Your task to perform on an android device: Open Google Maps Image 0: 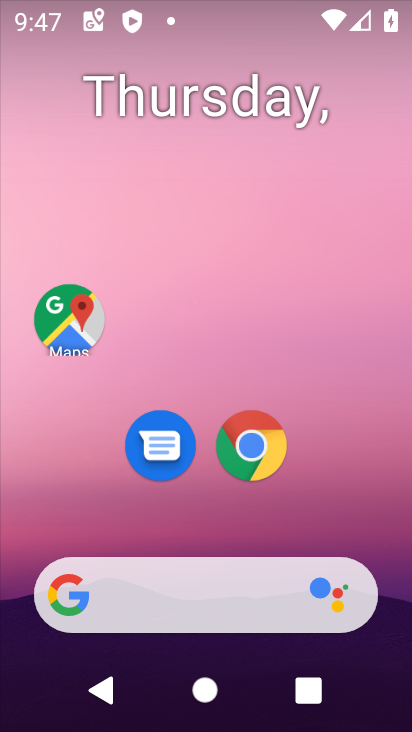
Step 0: click (265, 238)
Your task to perform on an android device: Open Google Maps Image 1: 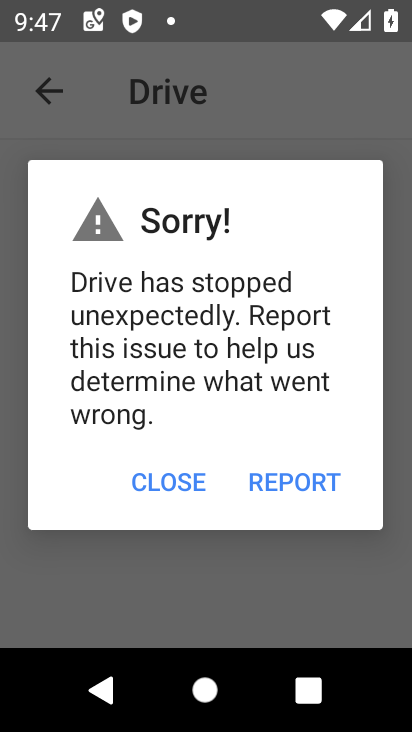
Step 1: press home button
Your task to perform on an android device: Open Google Maps Image 2: 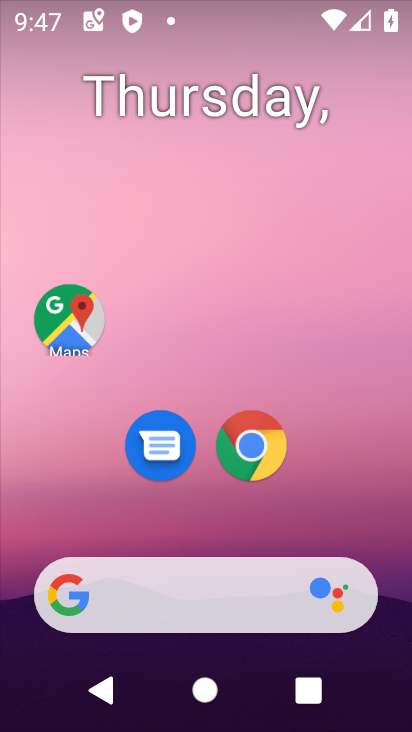
Step 2: click (73, 327)
Your task to perform on an android device: Open Google Maps Image 3: 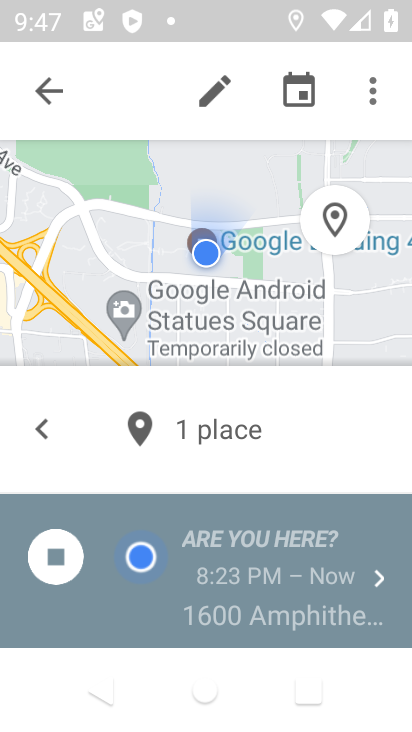
Step 3: click (49, 81)
Your task to perform on an android device: Open Google Maps Image 4: 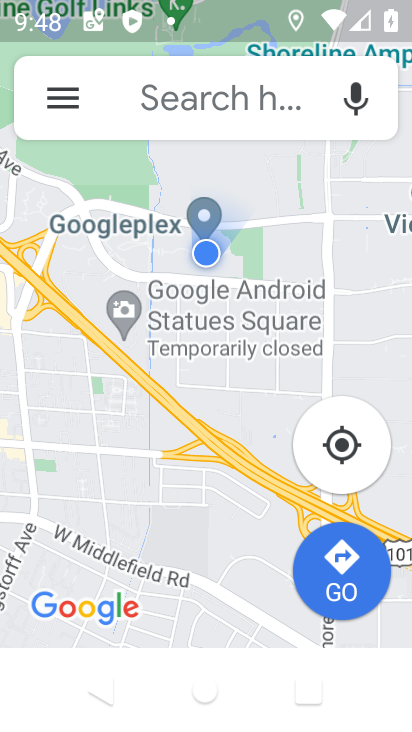
Step 4: task complete